Your task to perform on an android device: add a contact Image 0: 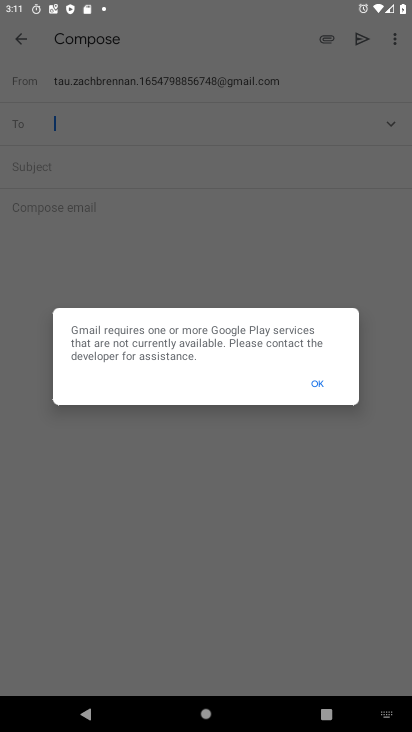
Step 0: press home button
Your task to perform on an android device: add a contact Image 1: 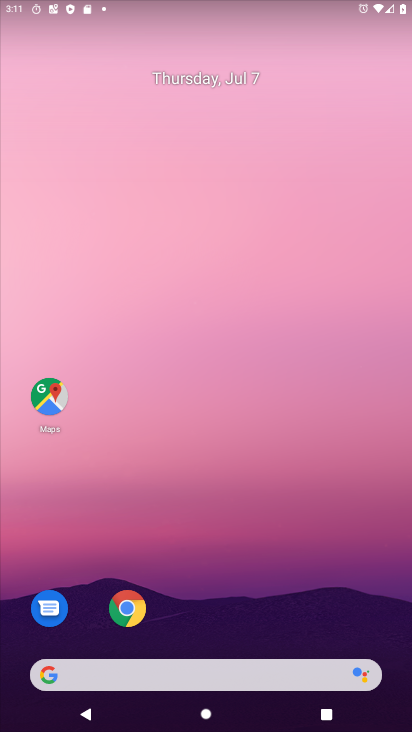
Step 1: drag from (253, 727) to (255, 74)
Your task to perform on an android device: add a contact Image 2: 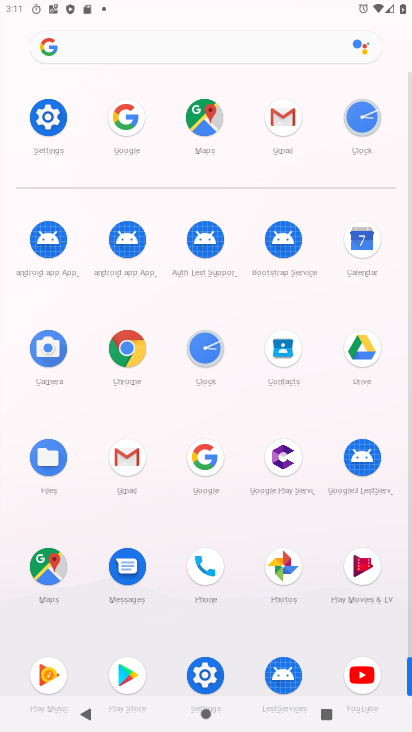
Step 2: click (279, 361)
Your task to perform on an android device: add a contact Image 3: 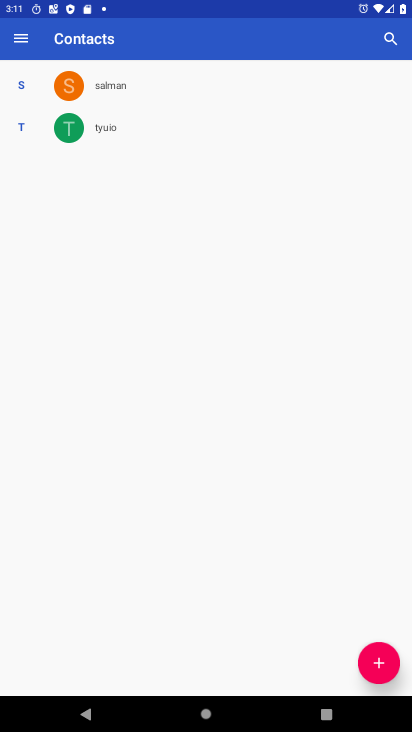
Step 3: click (373, 659)
Your task to perform on an android device: add a contact Image 4: 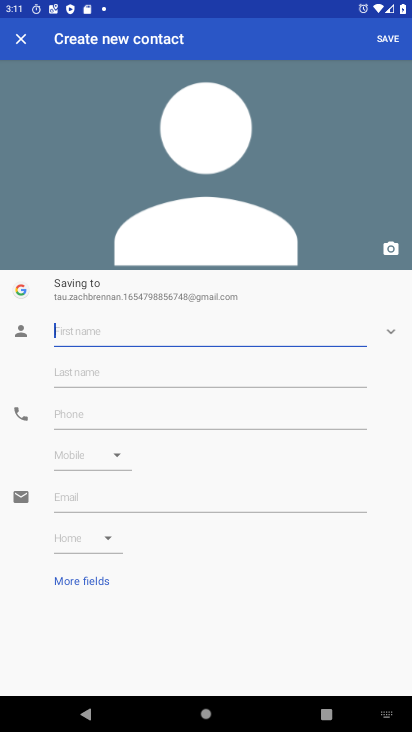
Step 4: type "samantha"
Your task to perform on an android device: add a contact Image 5: 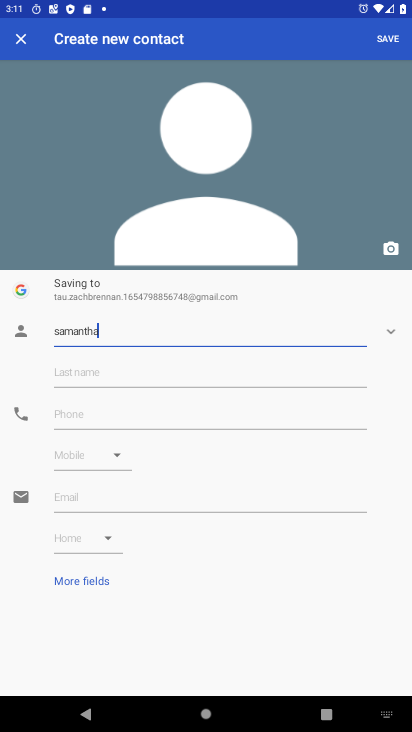
Step 5: click (135, 405)
Your task to perform on an android device: add a contact Image 6: 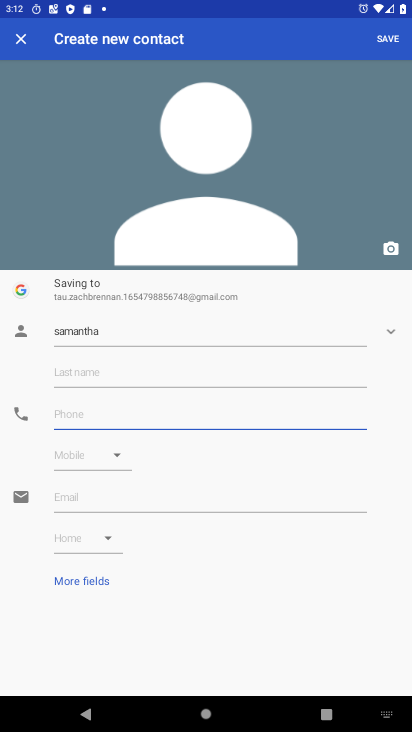
Step 6: type "87878787"
Your task to perform on an android device: add a contact Image 7: 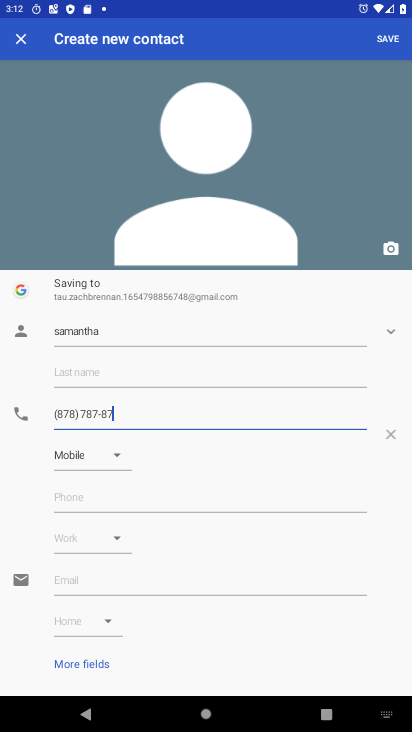
Step 7: click (386, 36)
Your task to perform on an android device: add a contact Image 8: 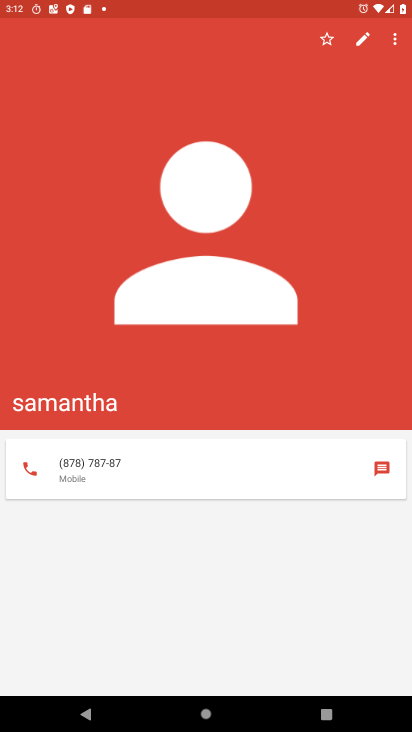
Step 8: task complete